Your task to perform on an android device: Open my contact list Image 0: 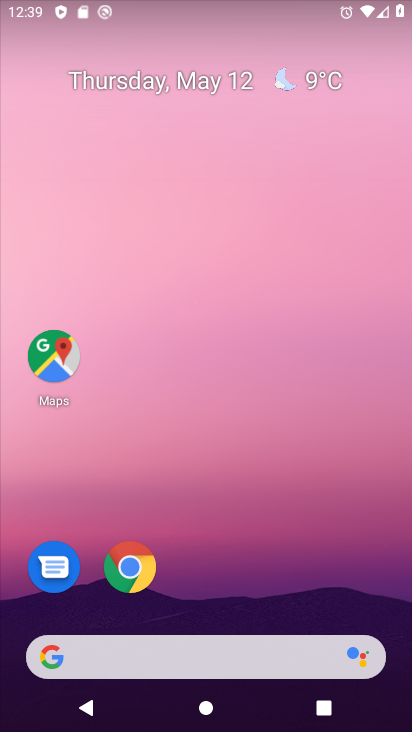
Step 0: drag from (205, 628) to (270, 175)
Your task to perform on an android device: Open my contact list Image 1: 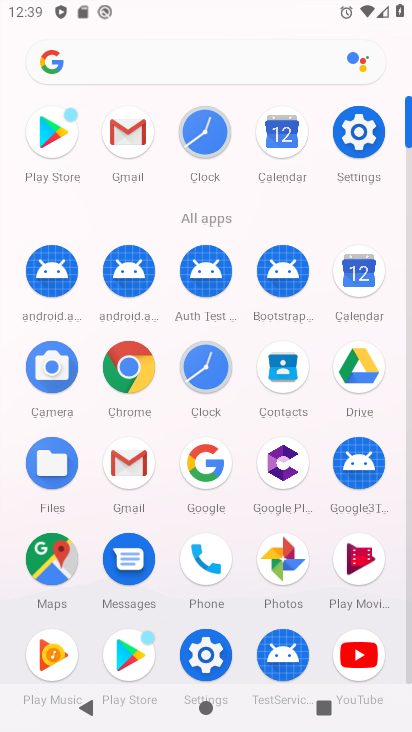
Step 1: click (288, 361)
Your task to perform on an android device: Open my contact list Image 2: 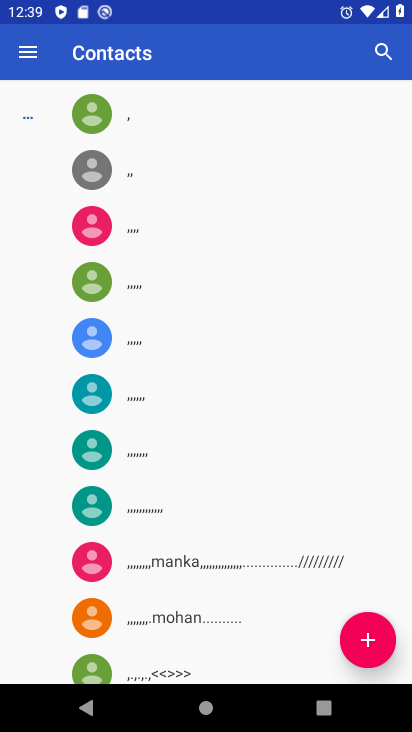
Step 2: task complete